Your task to perform on an android device: add a contact Image 0: 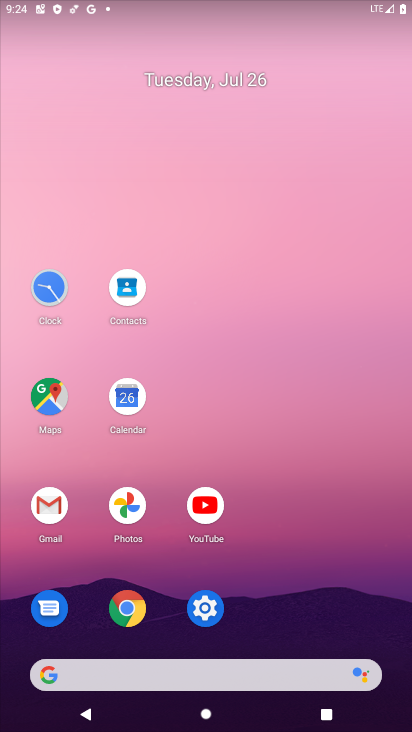
Step 0: click (128, 284)
Your task to perform on an android device: add a contact Image 1: 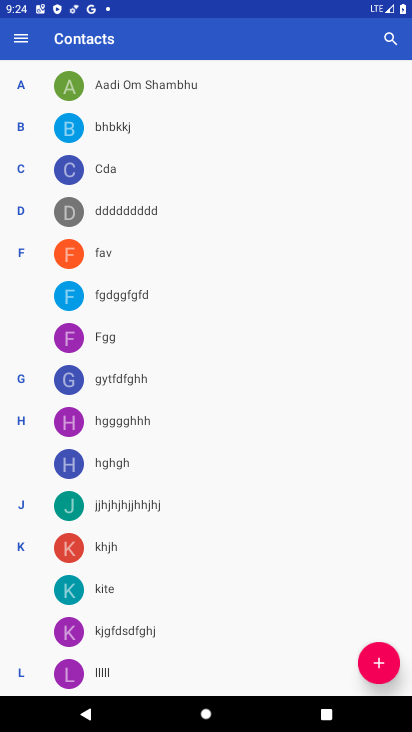
Step 1: click (378, 662)
Your task to perform on an android device: add a contact Image 2: 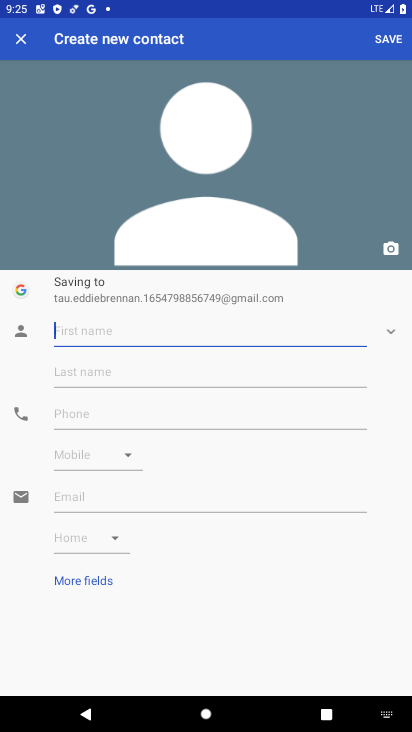
Step 2: type "hhhh"
Your task to perform on an android device: add a contact Image 3: 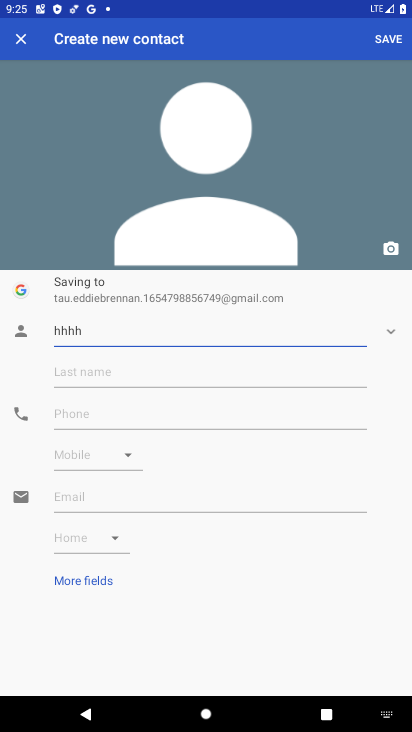
Step 3: click (62, 409)
Your task to perform on an android device: add a contact Image 4: 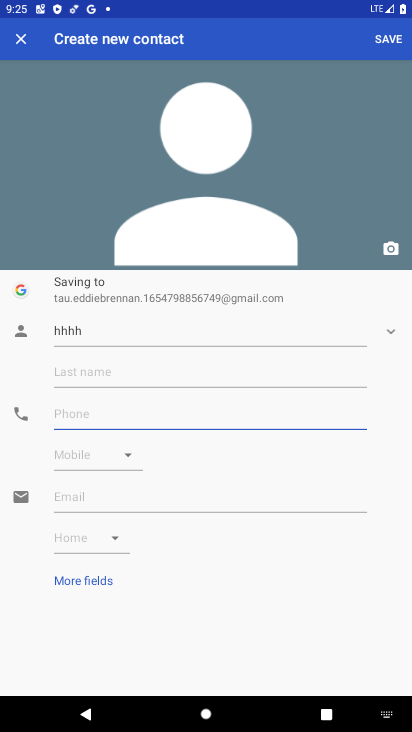
Step 4: type "6767"
Your task to perform on an android device: add a contact Image 5: 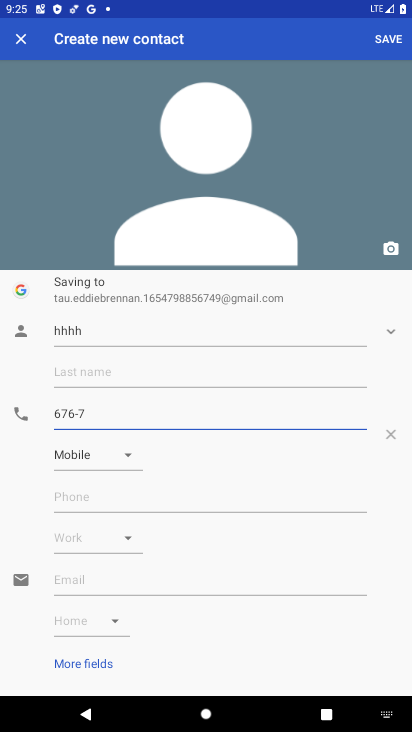
Step 5: click (393, 33)
Your task to perform on an android device: add a contact Image 6: 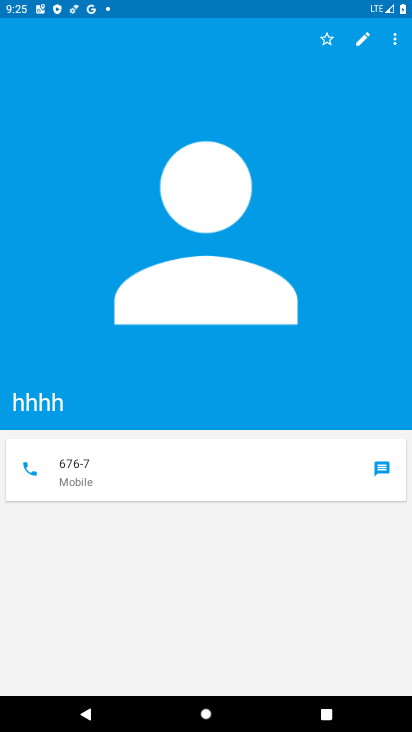
Step 6: task complete